Your task to perform on an android device: Open Wikipedia Image 0: 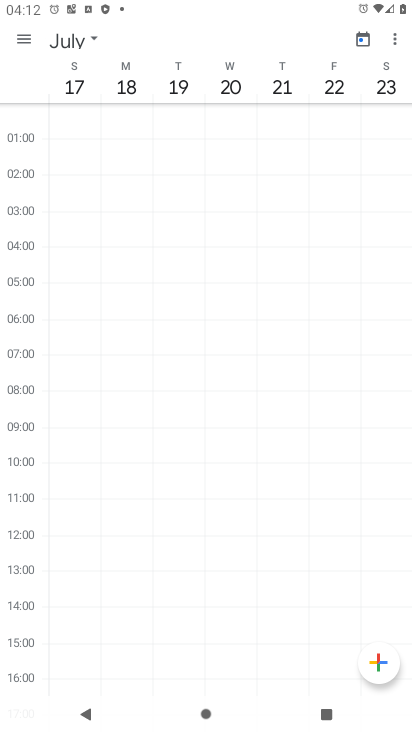
Step 0: press home button
Your task to perform on an android device: Open Wikipedia Image 1: 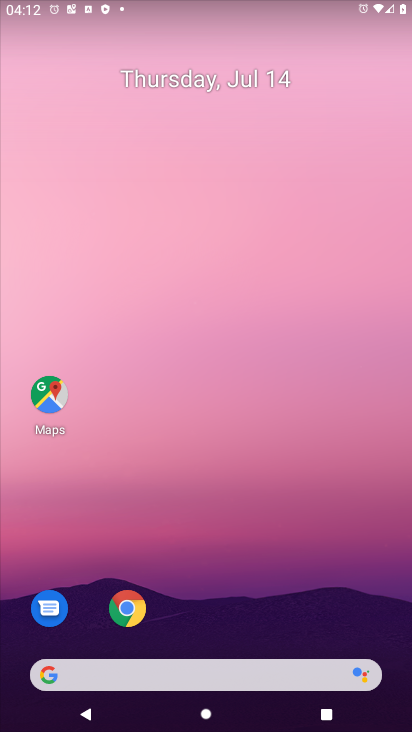
Step 1: click (131, 604)
Your task to perform on an android device: Open Wikipedia Image 2: 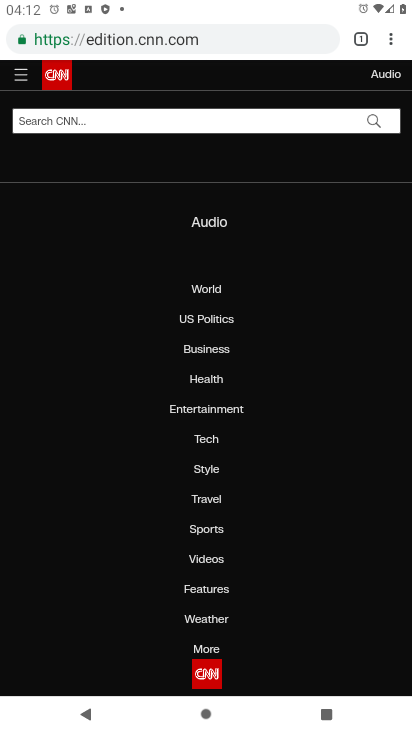
Step 2: click (211, 36)
Your task to perform on an android device: Open Wikipedia Image 3: 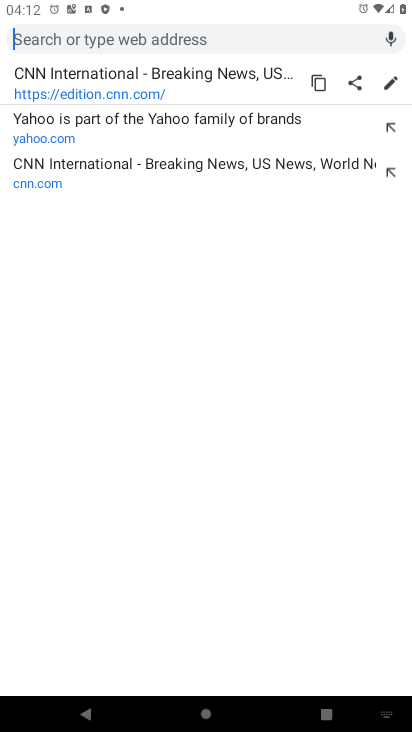
Step 3: type "wikipedia"
Your task to perform on an android device: Open Wikipedia Image 4: 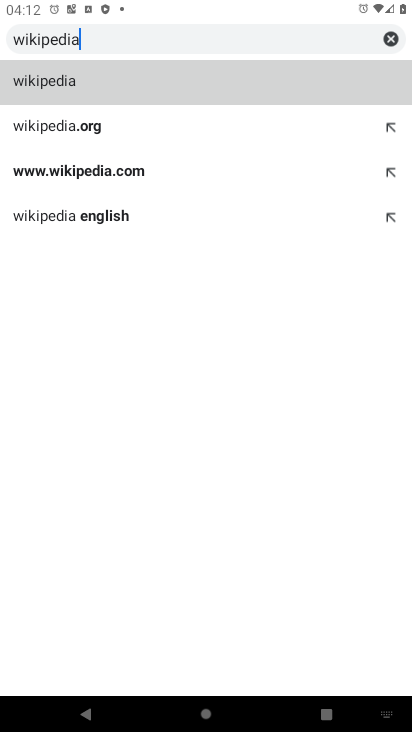
Step 4: click (58, 81)
Your task to perform on an android device: Open Wikipedia Image 5: 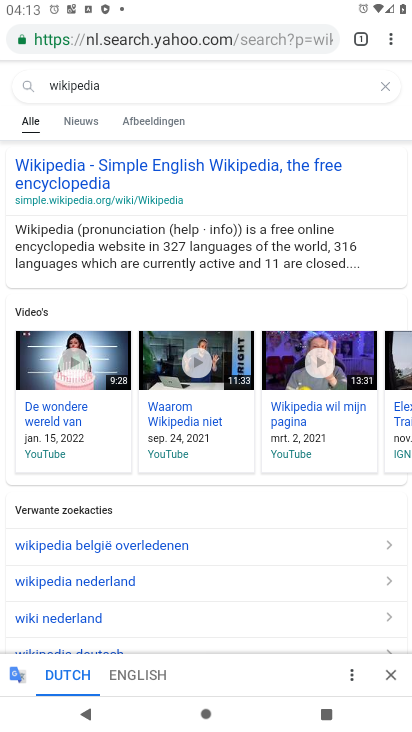
Step 5: click (68, 178)
Your task to perform on an android device: Open Wikipedia Image 6: 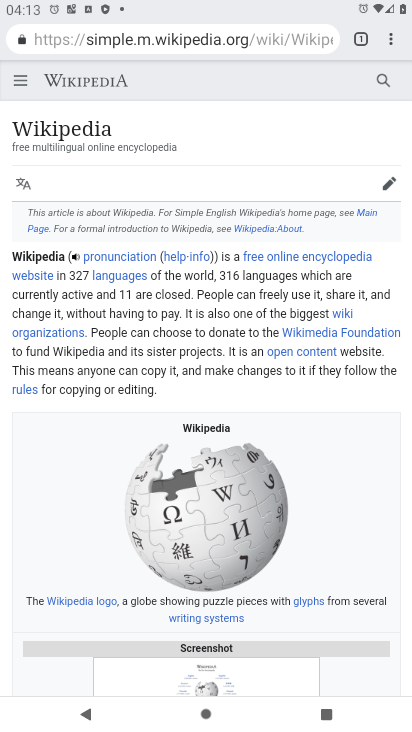
Step 6: task complete